Your task to perform on an android device: Clear the shopping cart on costco. Image 0: 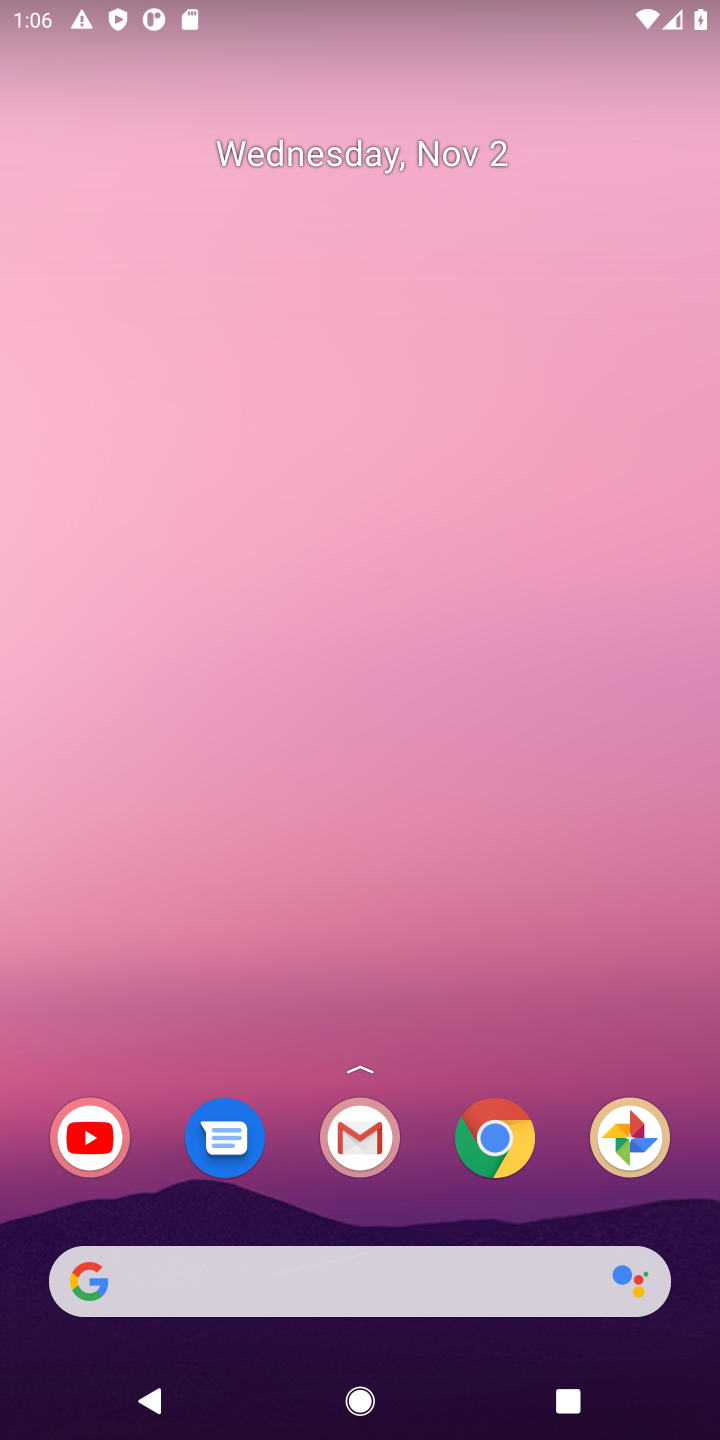
Step 0: press home button
Your task to perform on an android device: Clear the shopping cart on costco. Image 1: 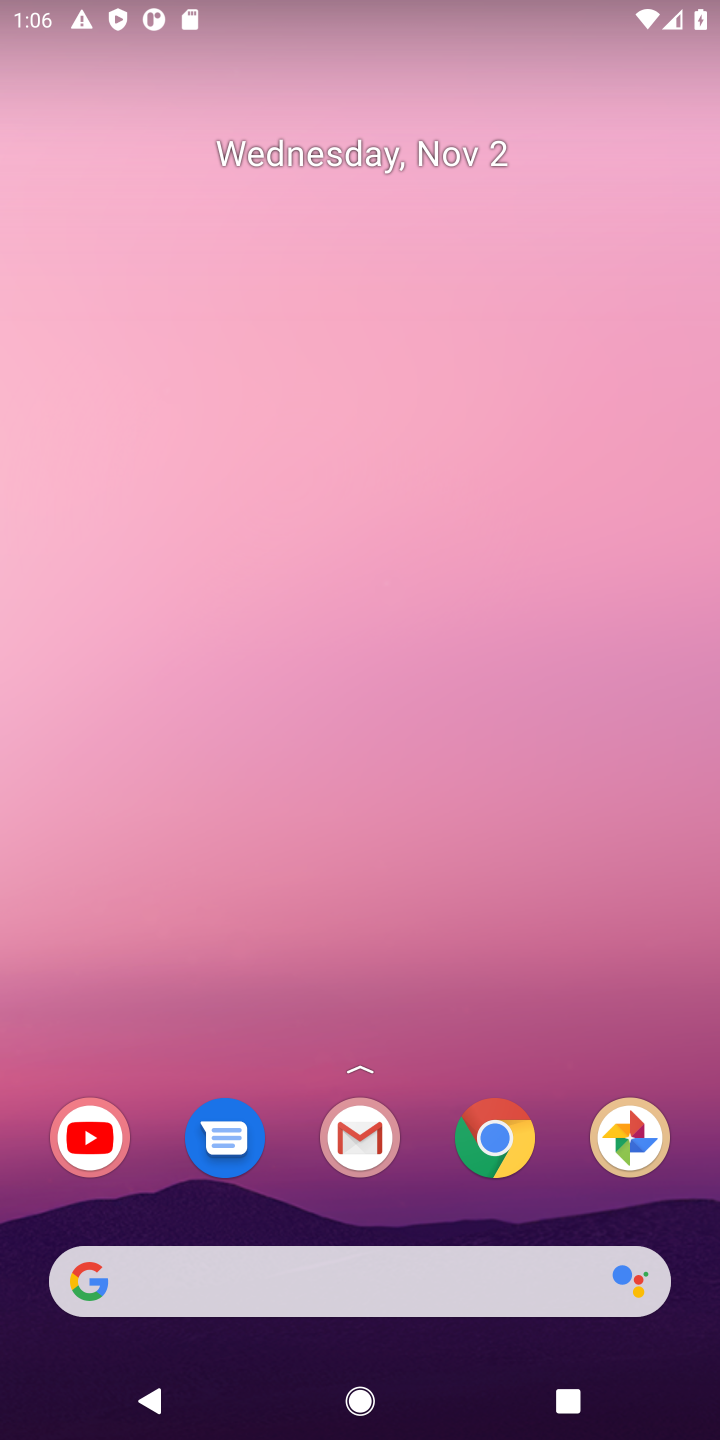
Step 1: click (146, 1285)
Your task to perform on an android device: Clear the shopping cart on costco. Image 2: 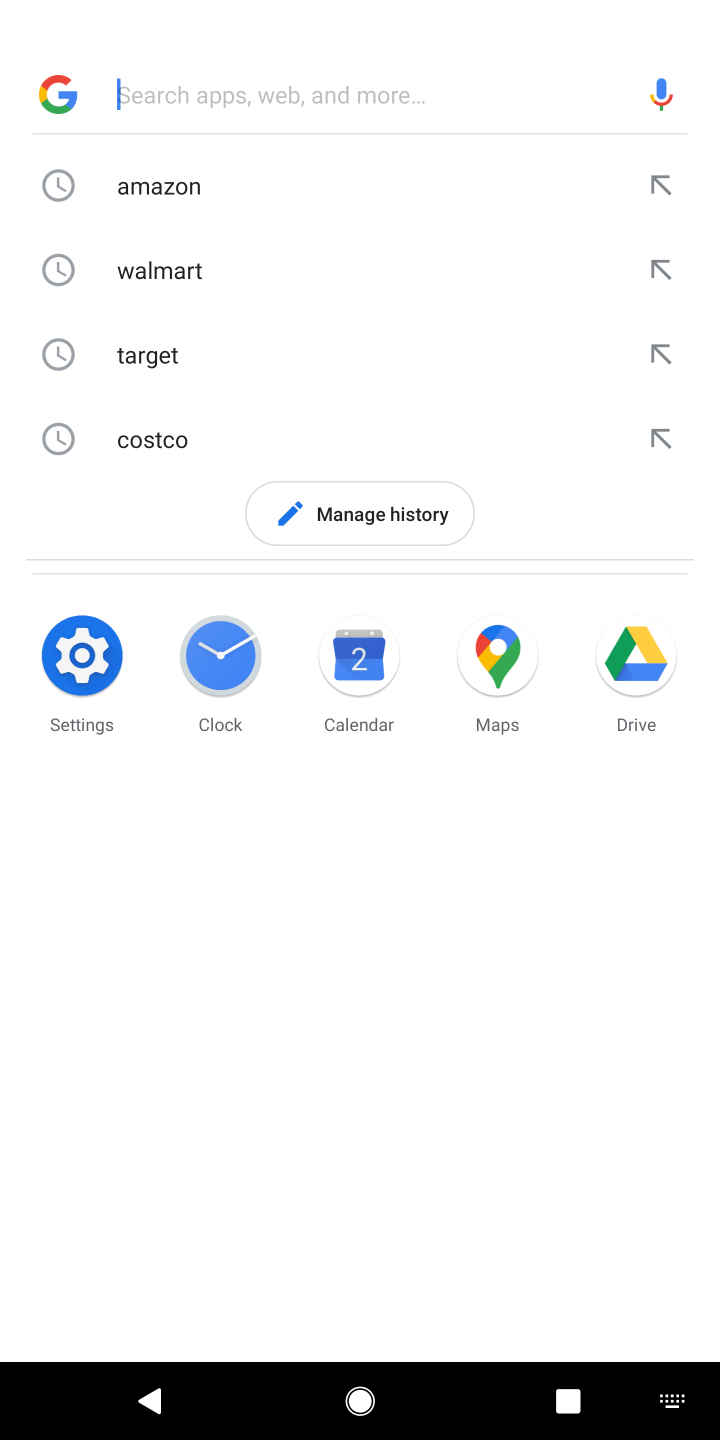
Step 2: press enter
Your task to perform on an android device: Clear the shopping cart on costco. Image 3: 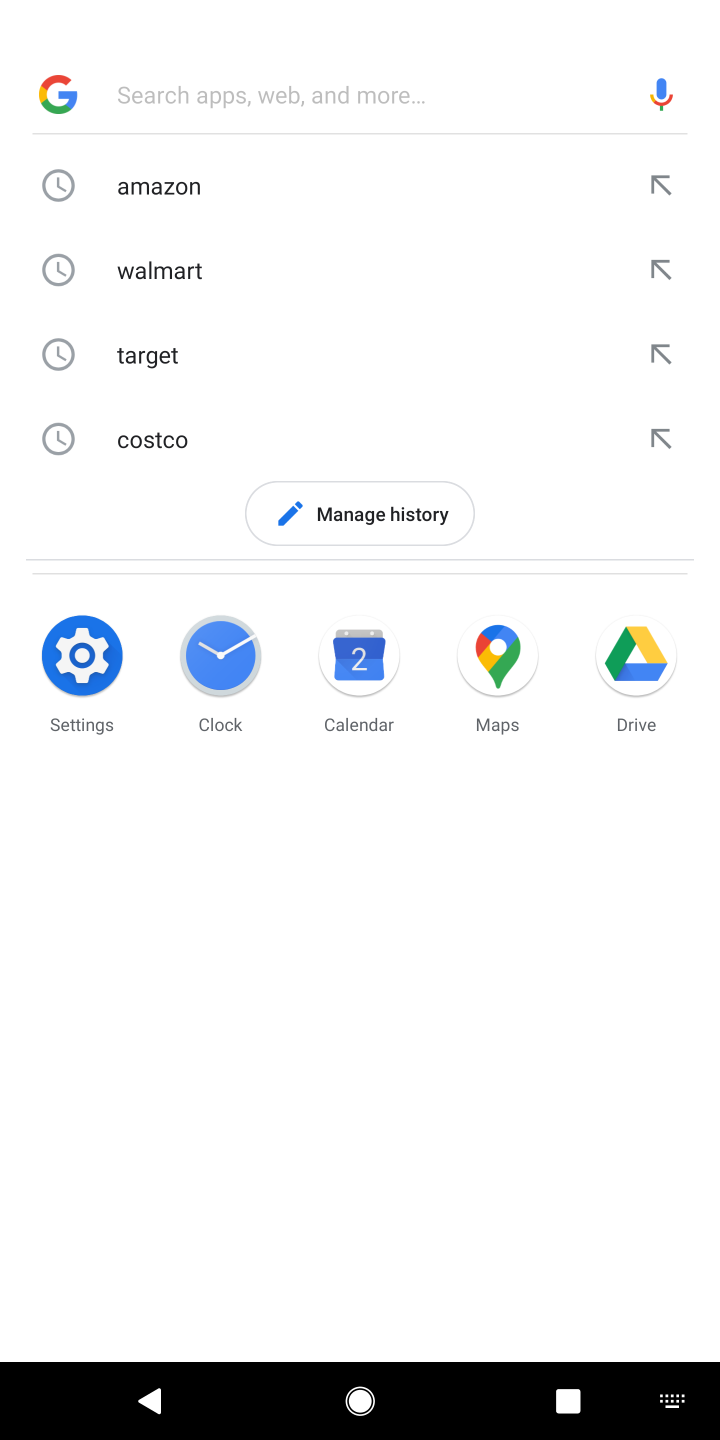
Step 3: type " costco"
Your task to perform on an android device: Clear the shopping cart on costco. Image 4: 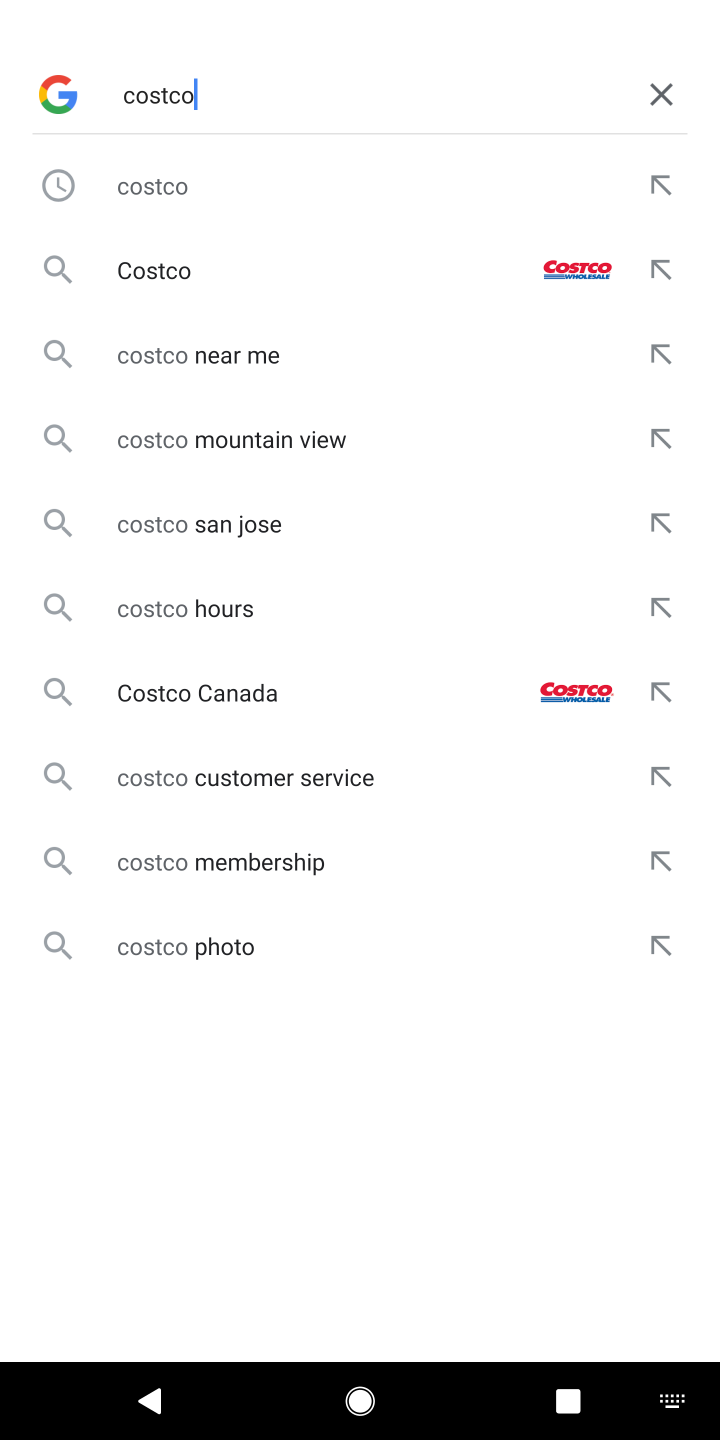
Step 4: press enter
Your task to perform on an android device: Clear the shopping cart on costco. Image 5: 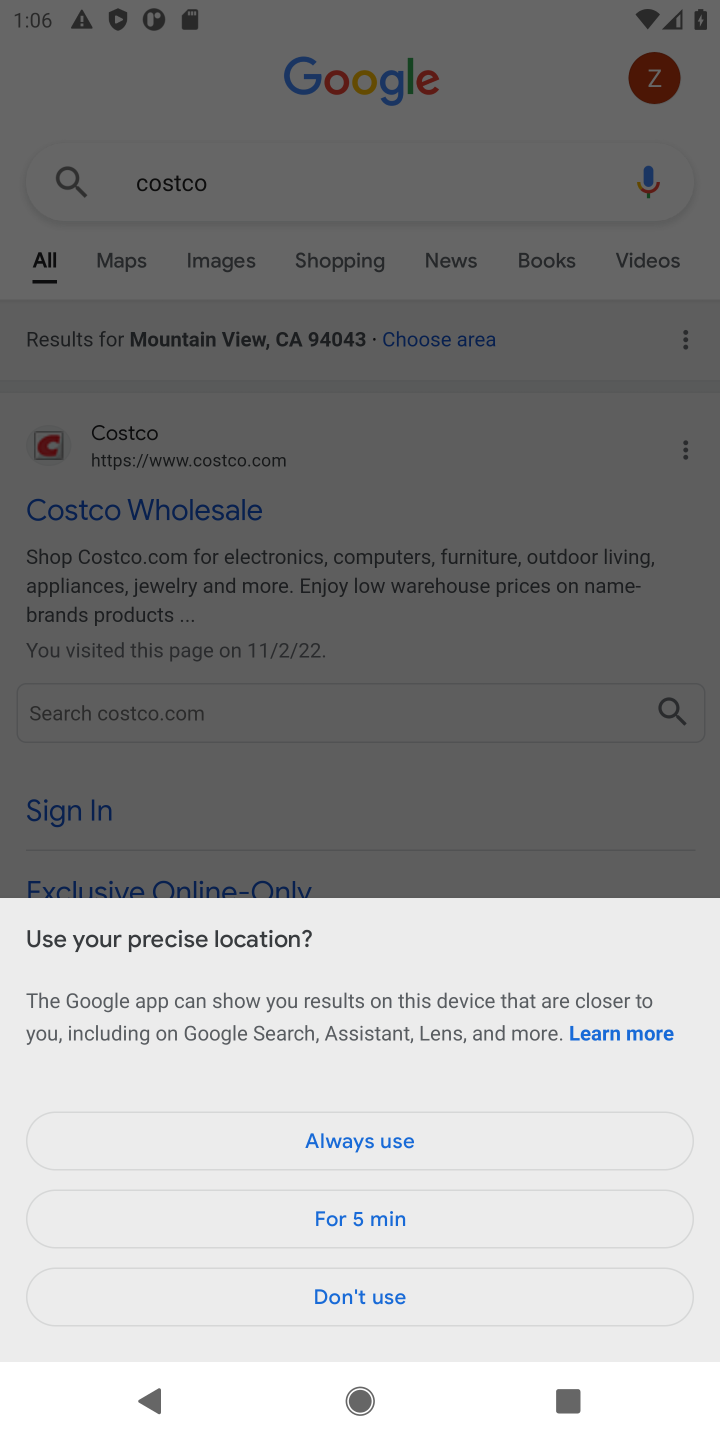
Step 5: click (215, 516)
Your task to perform on an android device: Clear the shopping cart on costco. Image 6: 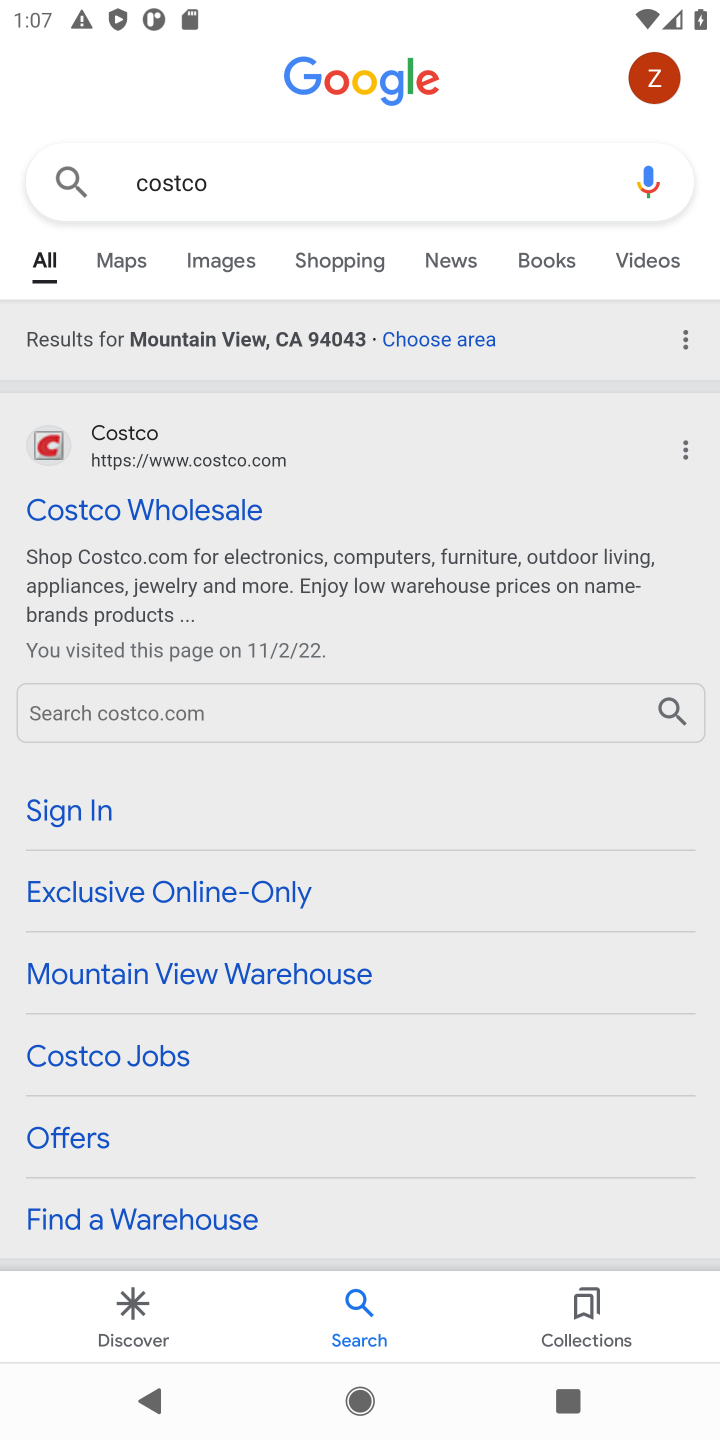
Step 6: click (124, 508)
Your task to perform on an android device: Clear the shopping cart on costco. Image 7: 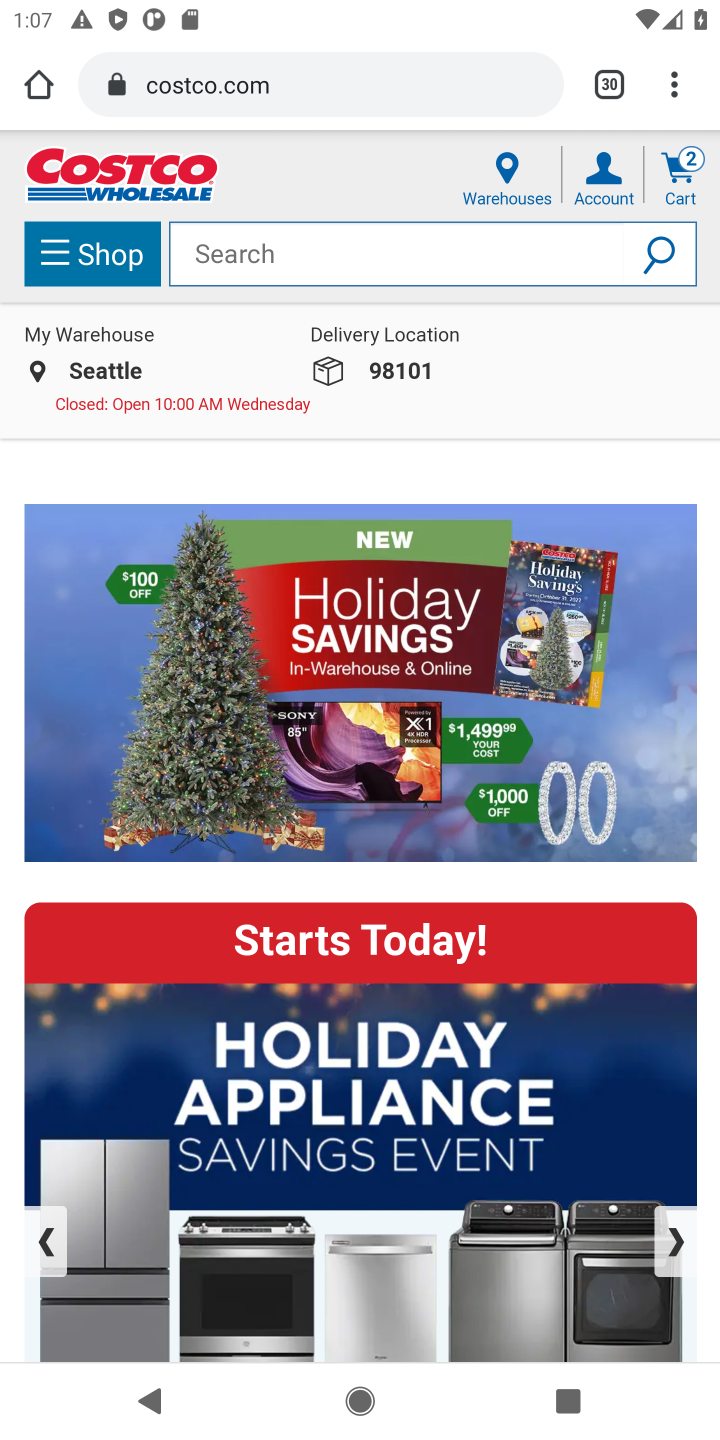
Step 7: click (677, 168)
Your task to perform on an android device: Clear the shopping cart on costco. Image 8: 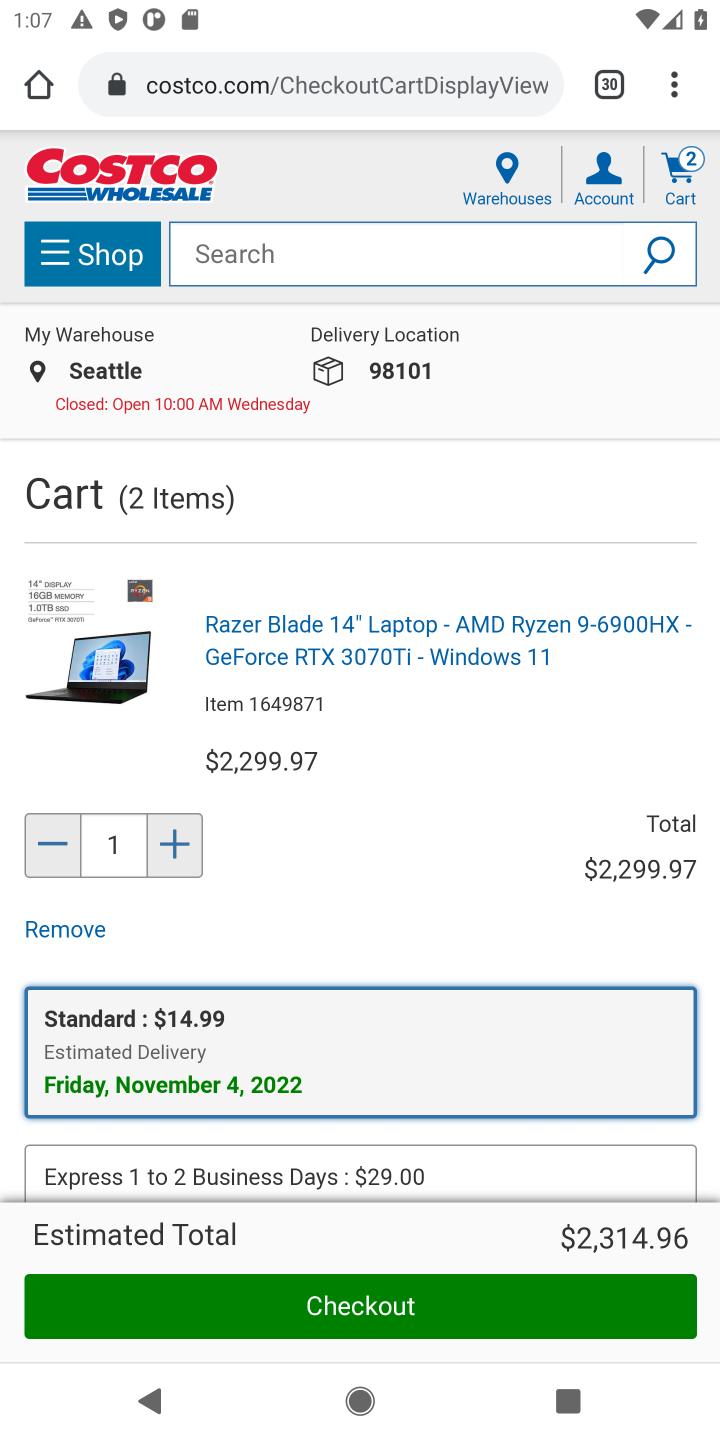
Step 8: drag from (344, 1005) to (374, 688)
Your task to perform on an android device: Clear the shopping cart on costco. Image 9: 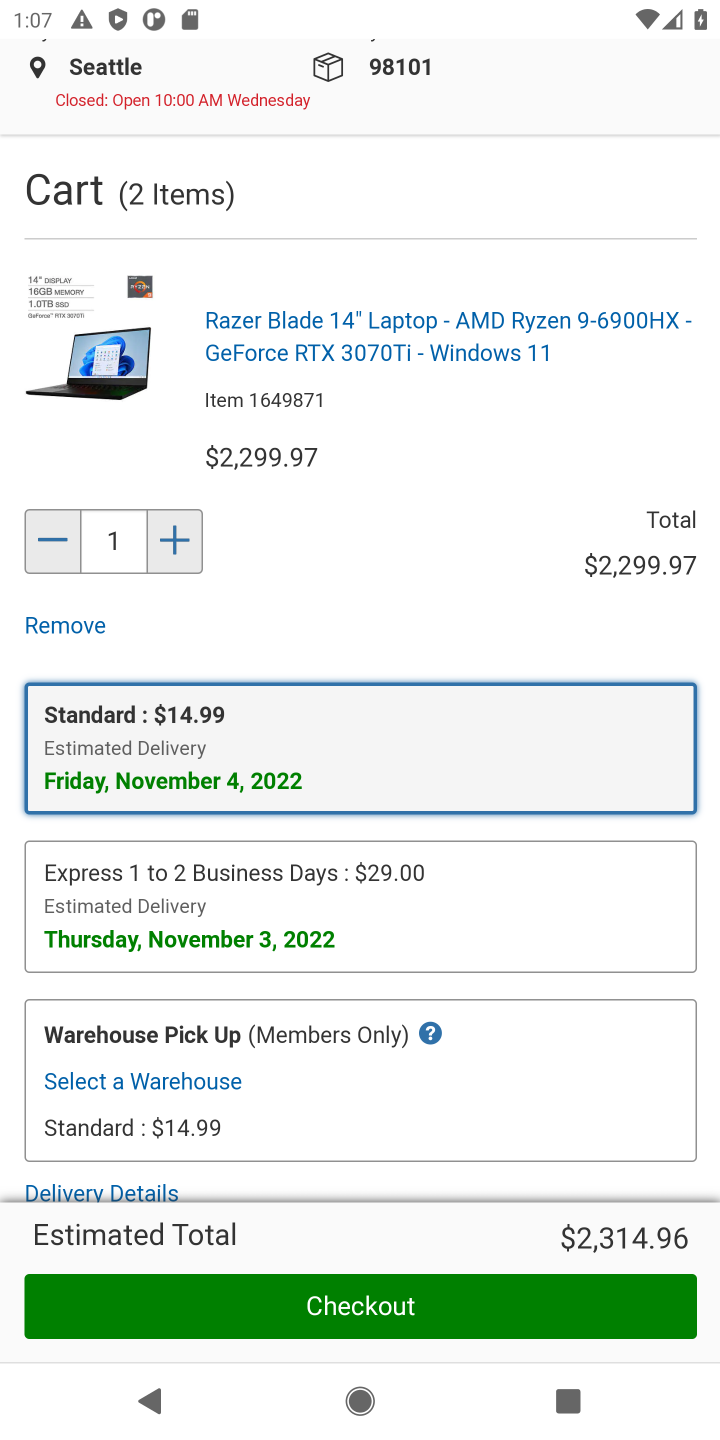
Step 9: click (63, 625)
Your task to perform on an android device: Clear the shopping cart on costco. Image 10: 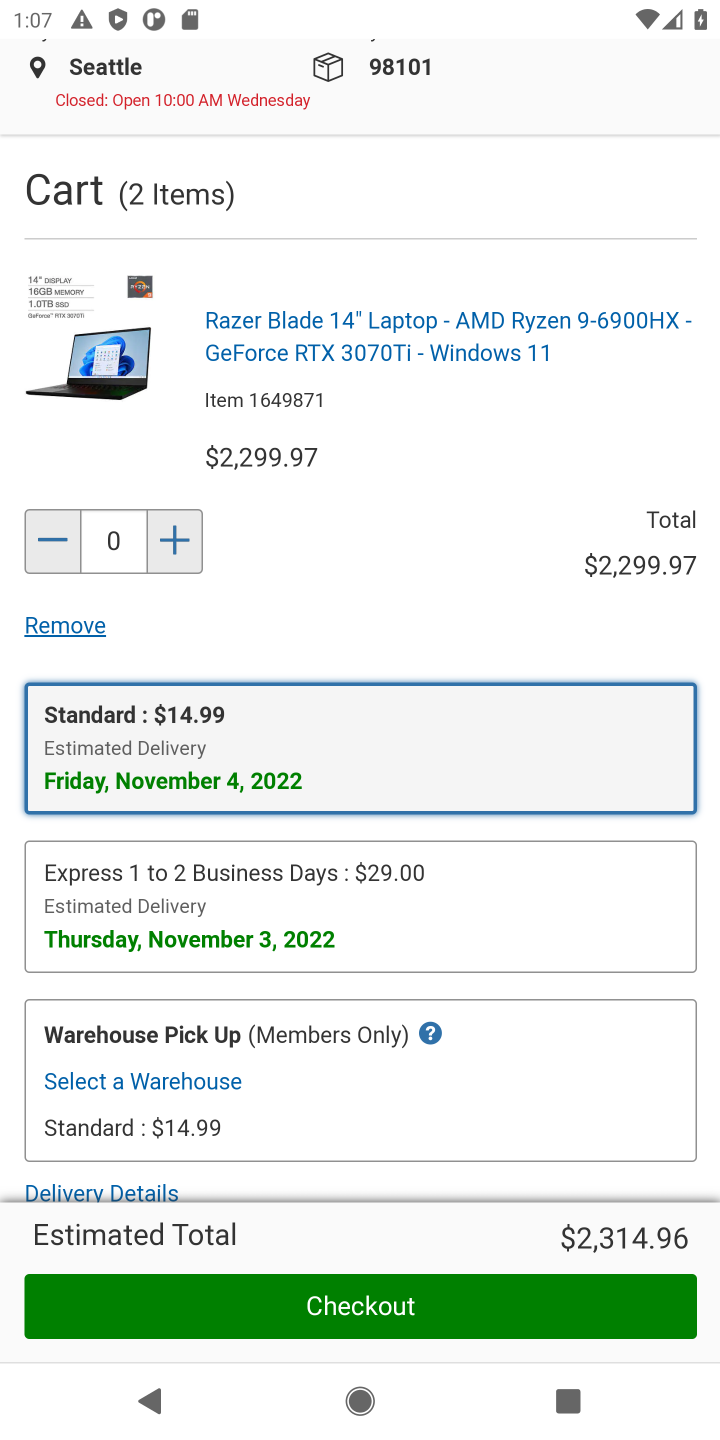
Step 10: task complete